Your task to perform on an android device: add a contact Image 0: 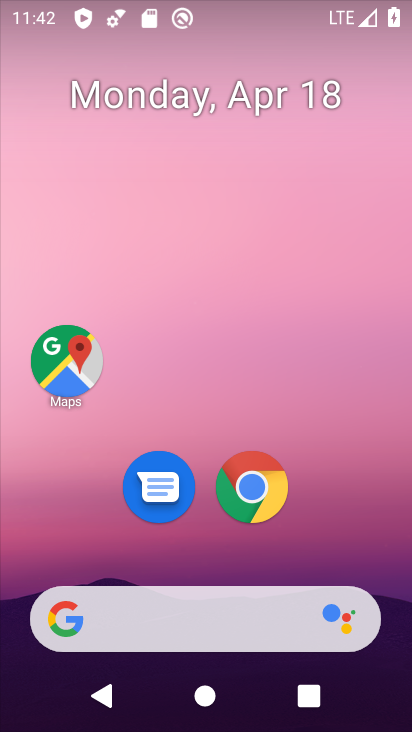
Step 0: drag from (202, 543) to (168, 221)
Your task to perform on an android device: add a contact Image 1: 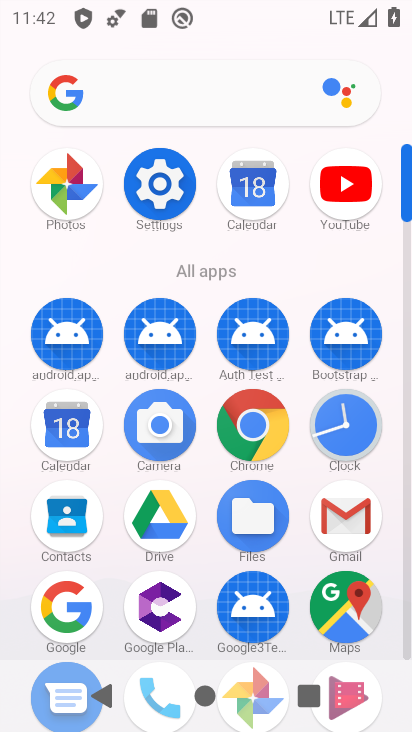
Step 1: click (61, 513)
Your task to perform on an android device: add a contact Image 2: 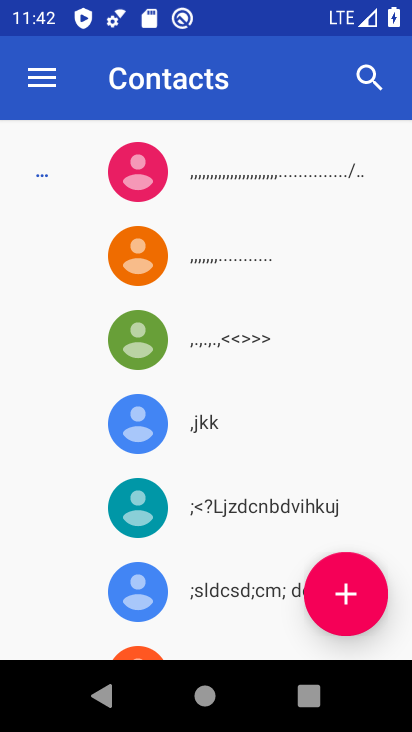
Step 2: click (337, 601)
Your task to perform on an android device: add a contact Image 3: 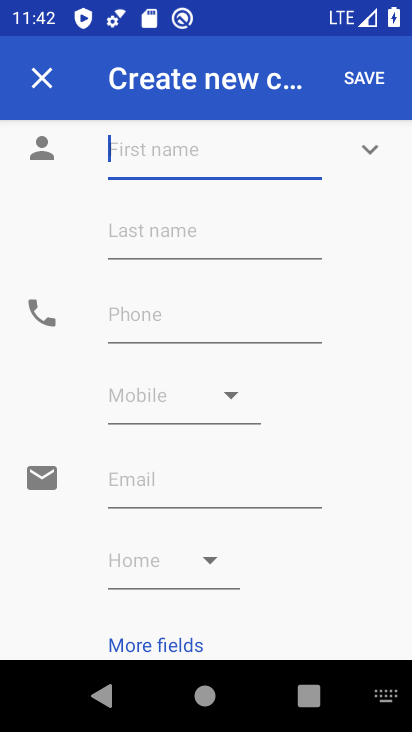
Step 3: type "jk"
Your task to perform on an android device: add a contact Image 4: 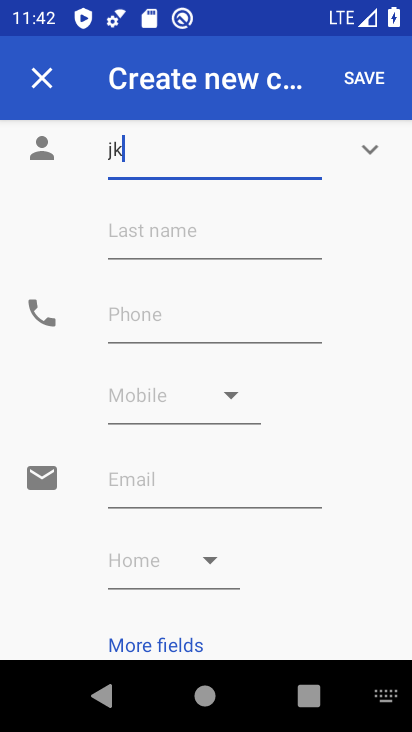
Step 4: type ""
Your task to perform on an android device: add a contact Image 5: 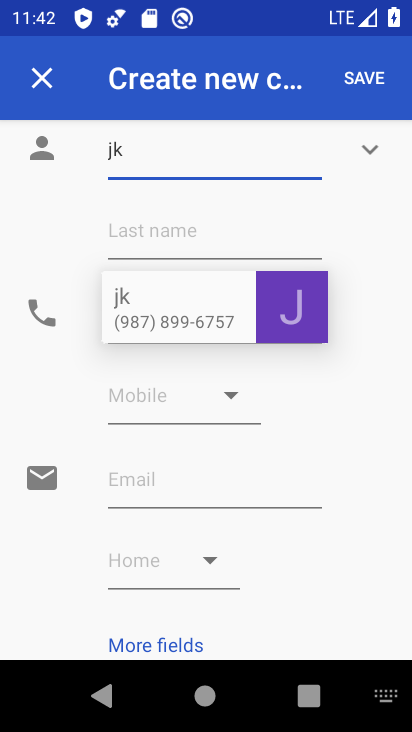
Step 5: click (367, 411)
Your task to perform on an android device: add a contact Image 6: 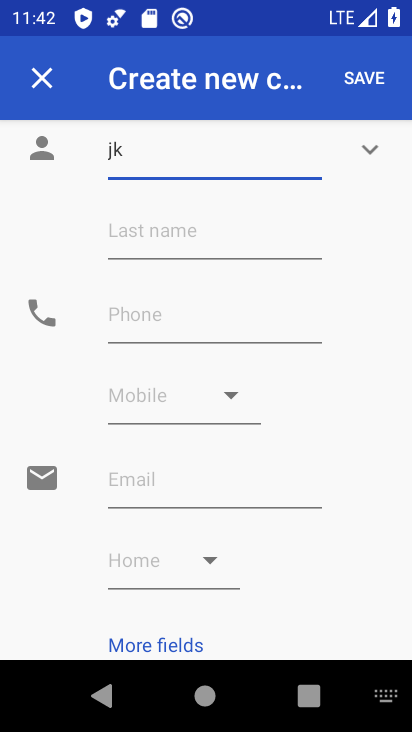
Step 6: click (142, 309)
Your task to perform on an android device: add a contact Image 7: 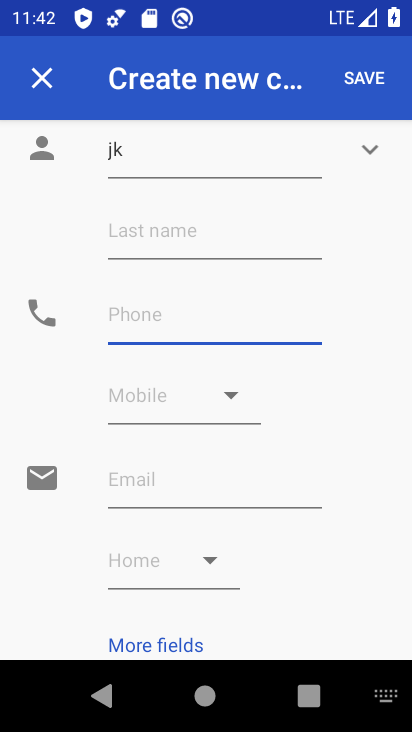
Step 7: type "5656"
Your task to perform on an android device: add a contact Image 8: 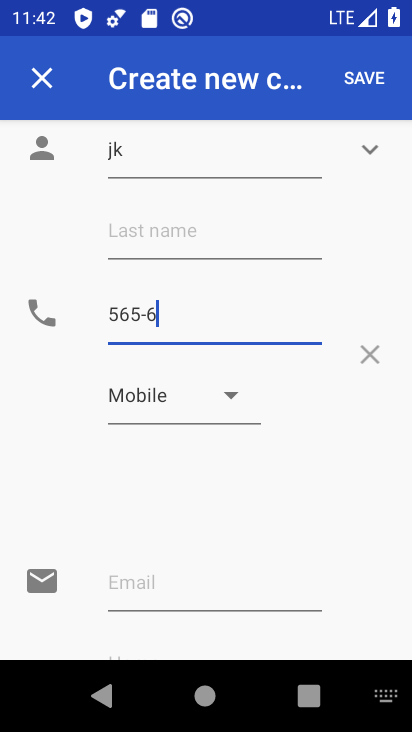
Step 8: type ""
Your task to perform on an android device: add a contact Image 9: 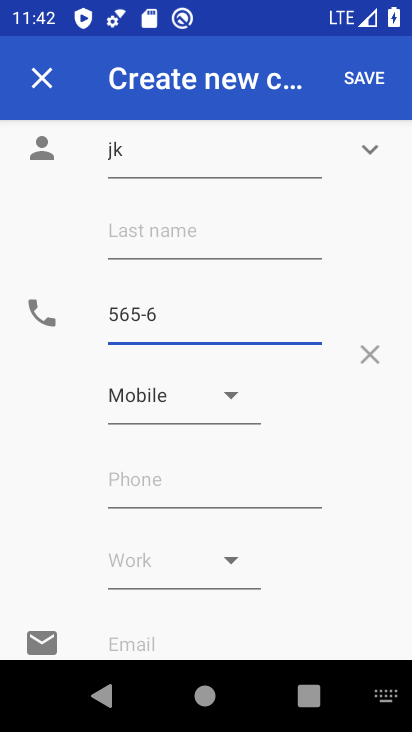
Step 9: click (369, 81)
Your task to perform on an android device: add a contact Image 10: 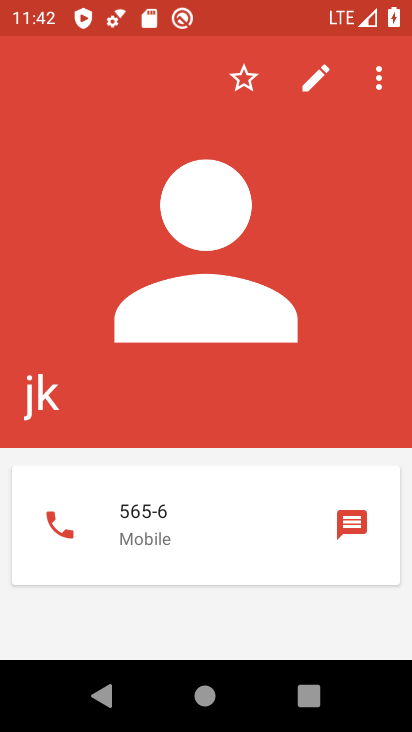
Step 10: task complete